Your task to perform on an android device: Search for pizza restaurants on Maps Image 0: 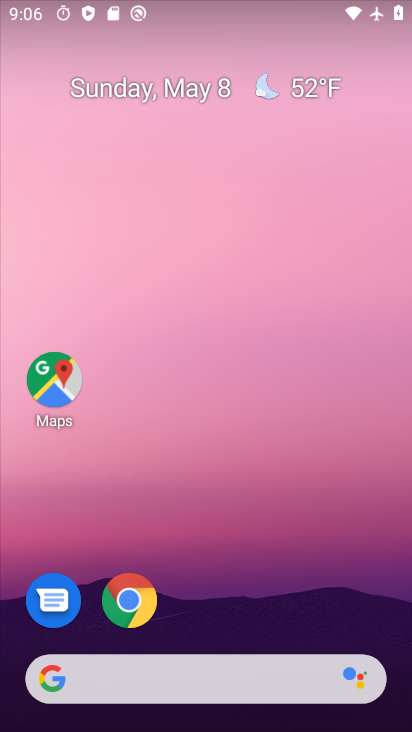
Step 0: click (37, 400)
Your task to perform on an android device: Search for pizza restaurants on Maps Image 1: 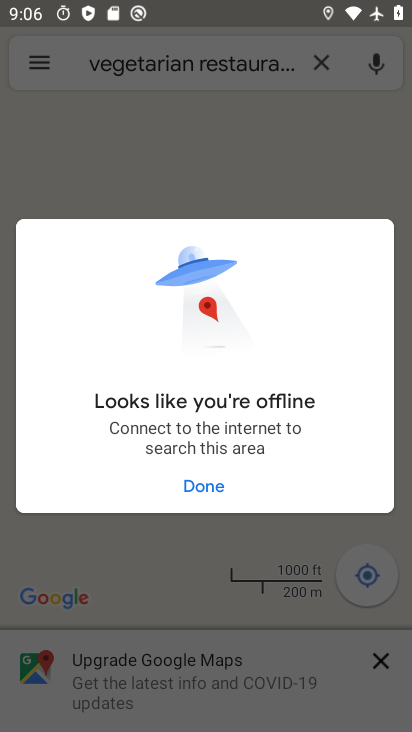
Step 1: click (195, 488)
Your task to perform on an android device: Search for pizza restaurants on Maps Image 2: 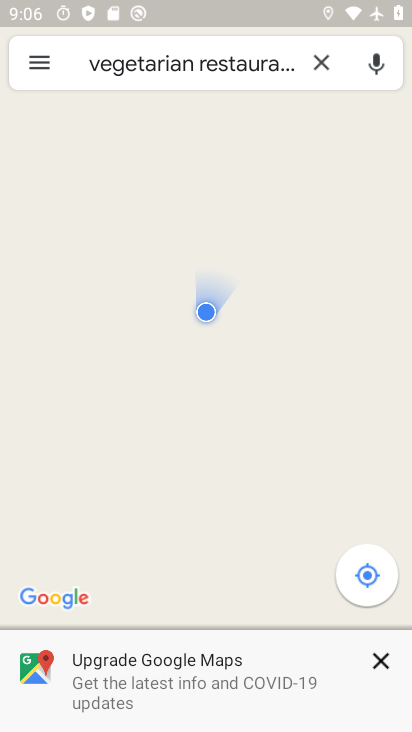
Step 2: click (324, 63)
Your task to perform on an android device: Search for pizza restaurants on Maps Image 3: 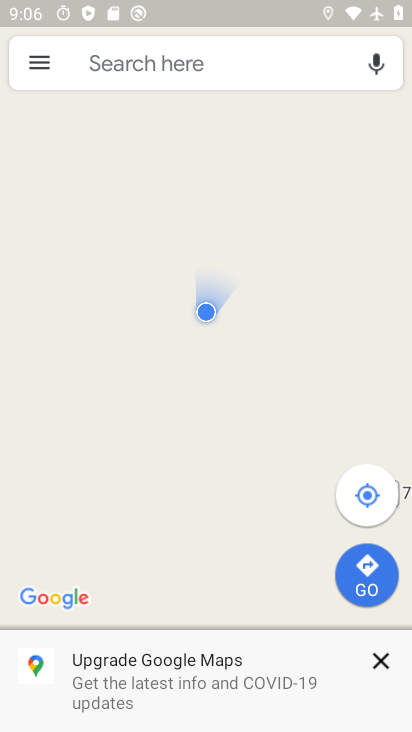
Step 3: click (235, 70)
Your task to perform on an android device: Search for pizza restaurants on Maps Image 4: 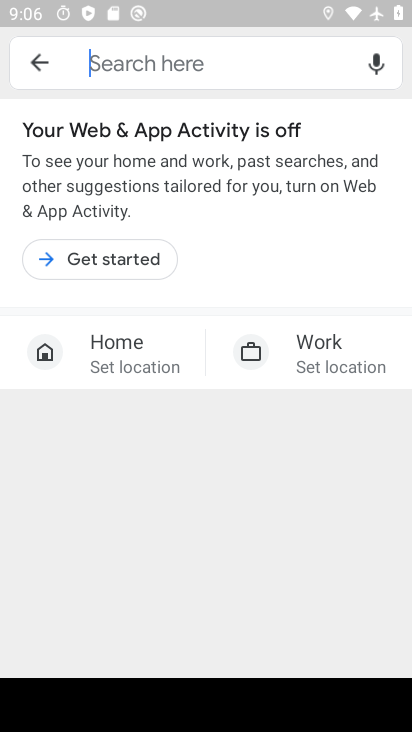
Step 4: type "Pizza restaurants"
Your task to perform on an android device: Search for pizza restaurants on Maps Image 5: 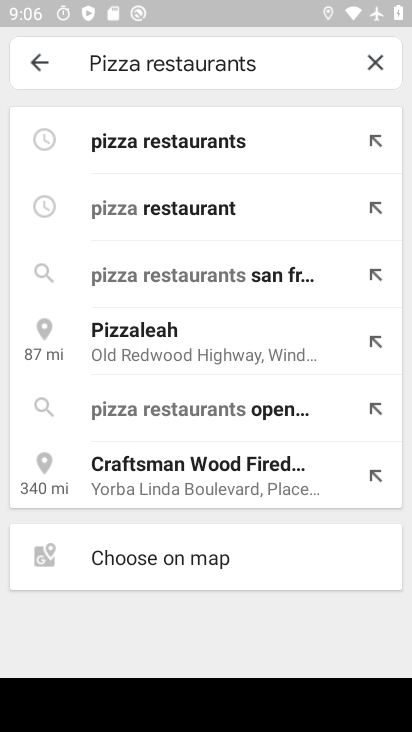
Step 5: click (233, 140)
Your task to perform on an android device: Search for pizza restaurants on Maps Image 6: 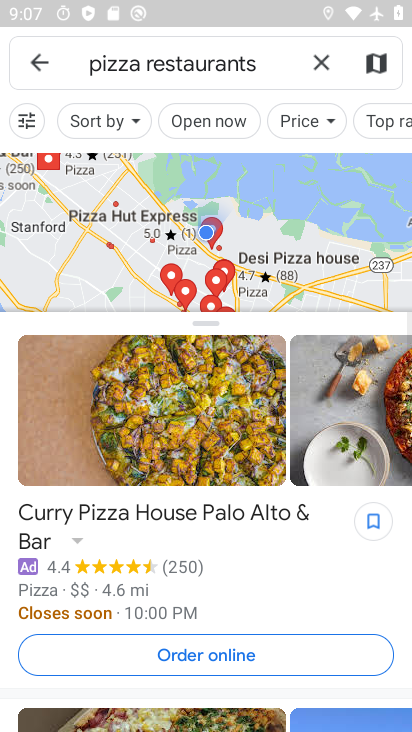
Step 6: task complete